Your task to perform on an android device: Open calendar and show me the fourth week of next month Image 0: 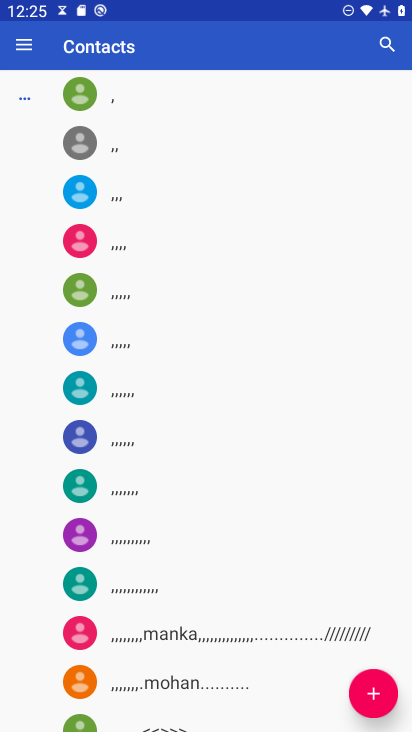
Step 0: press home button
Your task to perform on an android device: Open calendar and show me the fourth week of next month Image 1: 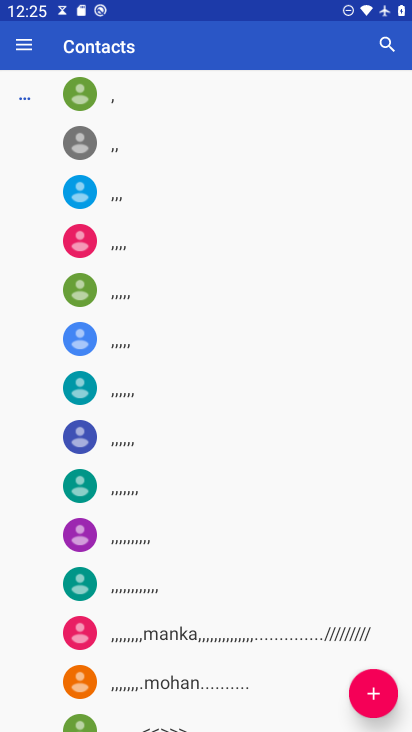
Step 1: press home button
Your task to perform on an android device: Open calendar and show me the fourth week of next month Image 2: 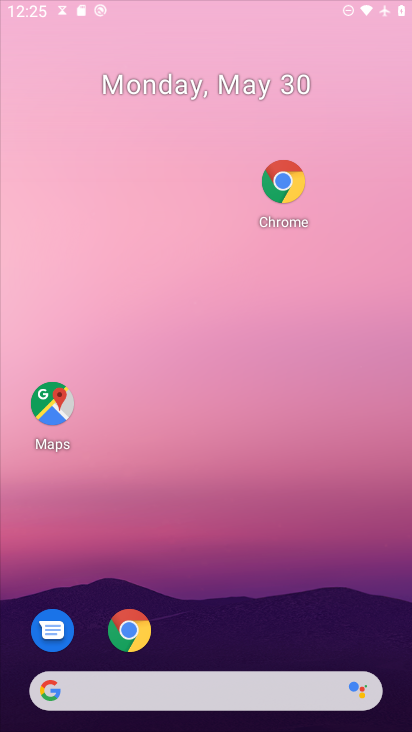
Step 2: press home button
Your task to perform on an android device: Open calendar and show me the fourth week of next month Image 3: 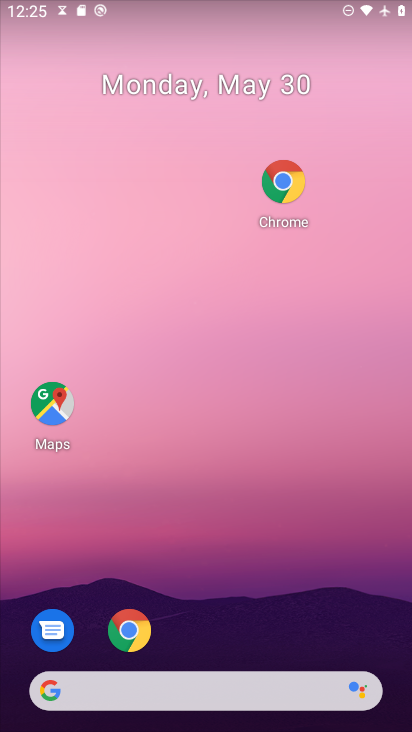
Step 3: drag from (211, 658) to (172, 182)
Your task to perform on an android device: Open calendar and show me the fourth week of next month Image 4: 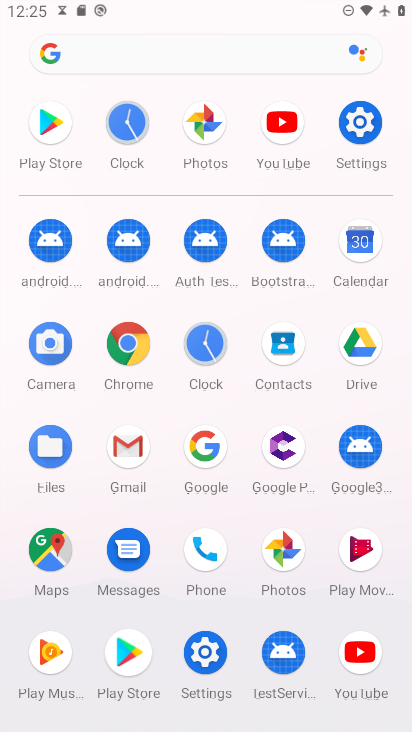
Step 4: click (352, 238)
Your task to perform on an android device: Open calendar and show me the fourth week of next month Image 5: 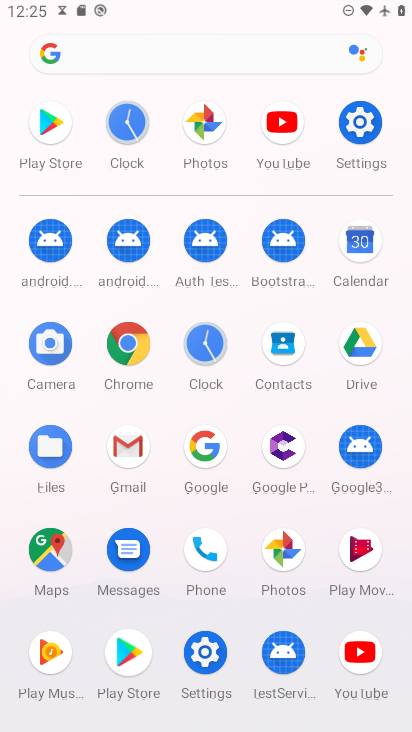
Step 5: click (352, 238)
Your task to perform on an android device: Open calendar and show me the fourth week of next month Image 6: 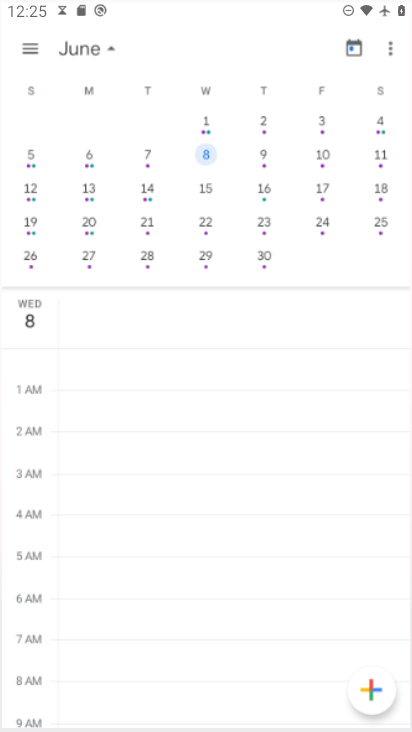
Step 6: click (357, 240)
Your task to perform on an android device: Open calendar and show me the fourth week of next month Image 7: 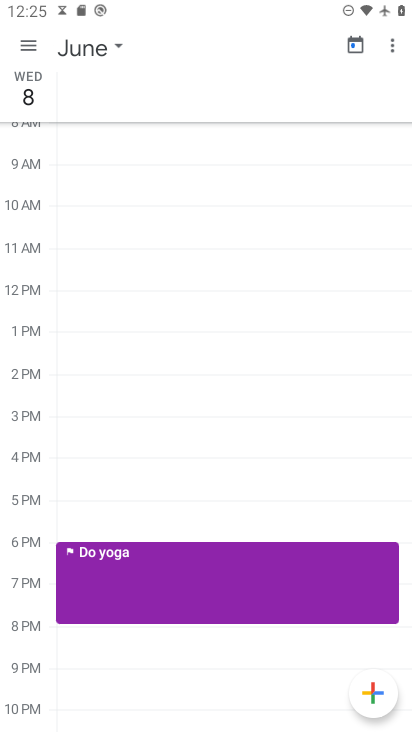
Step 7: press back button
Your task to perform on an android device: Open calendar and show me the fourth week of next month Image 8: 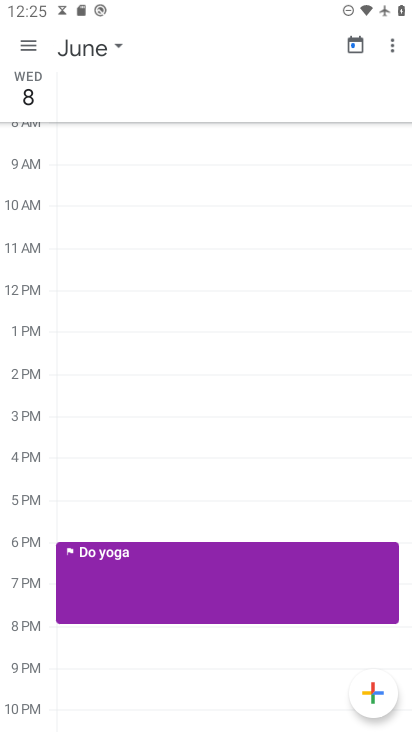
Step 8: press back button
Your task to perform on an android device: Open calendar and show me the fourth week of next month Image 9: 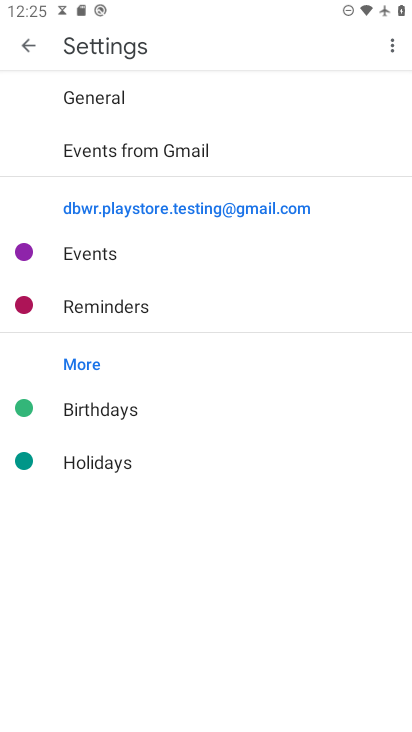
Step 9: press back button
Your task to perform on an android device: Open calendar and show me the fourth week of next month Image 10: 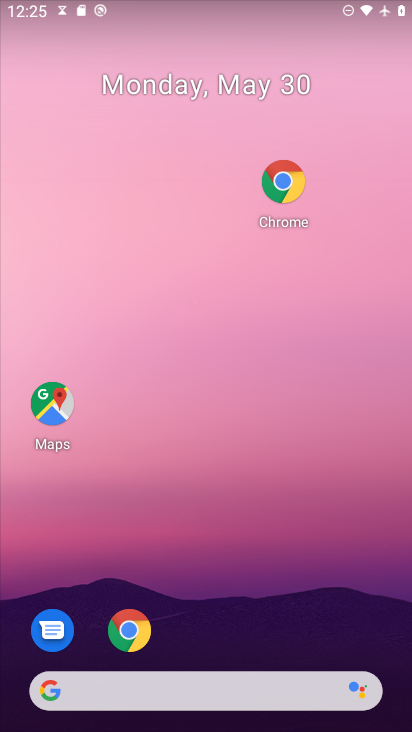
Step 10: drag from (223, 634) to (144, 123)
Your task to perform on an android device: Open calendar and show me the fourth week of next month Image 11: 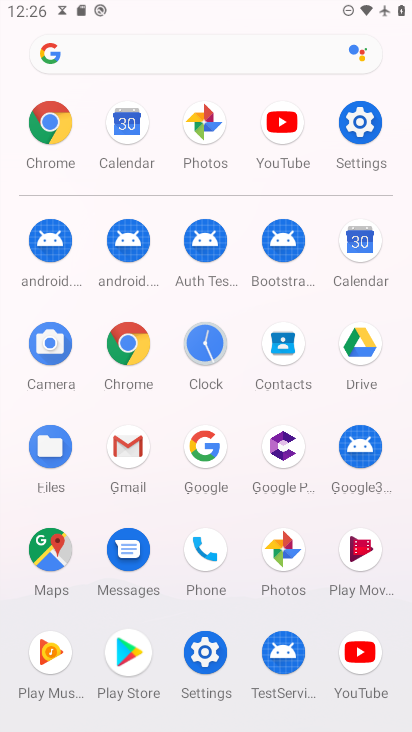
Step 11: click (360, 237)
Your task to perform on an android device: Open calendar and show me the fourth week of next month Image 12: 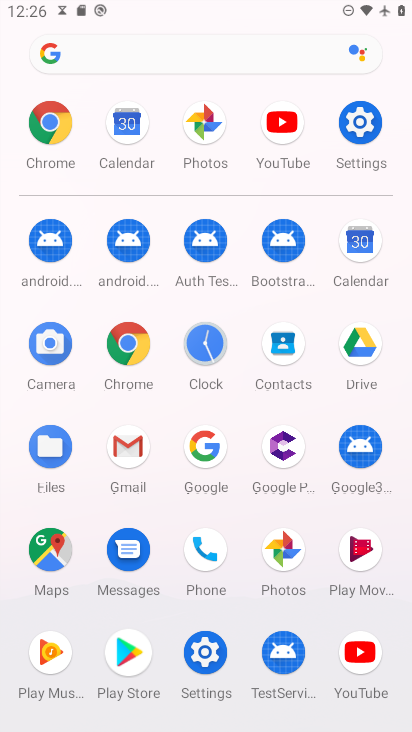
Step 12: click (361, 234)
Your task to perform on an android device: Open calendar and show me the fourth week of next month Image 13: 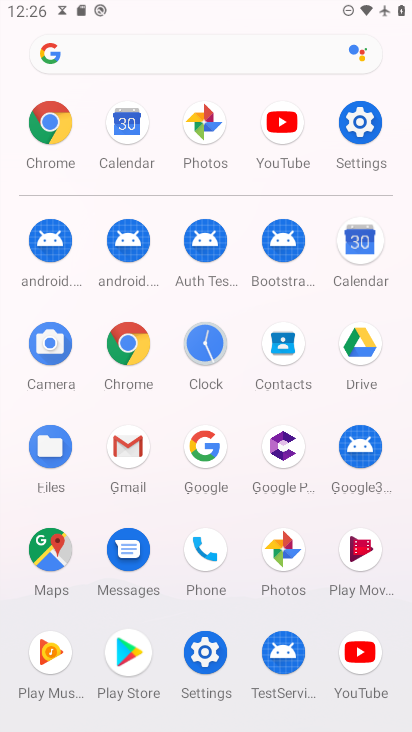
Step 13: click (362, 234)
Your task to perform on an android device: Open calendar and show me the fourth week of next month Image 14: 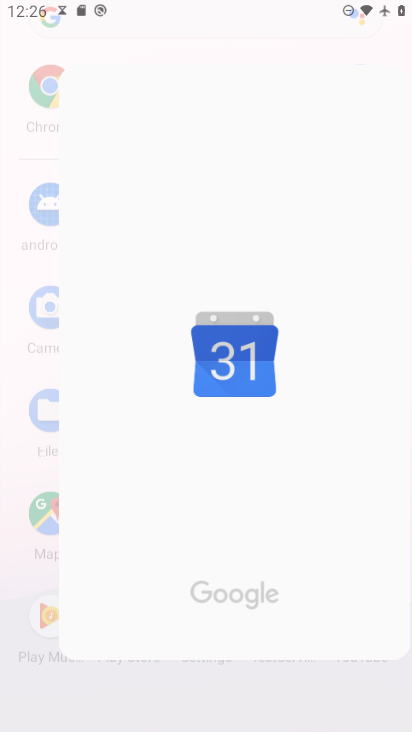
Step 14: click (364, 237)
Your task to perform on an android device: Open calendar and show me the fourth week of next month Image 15: 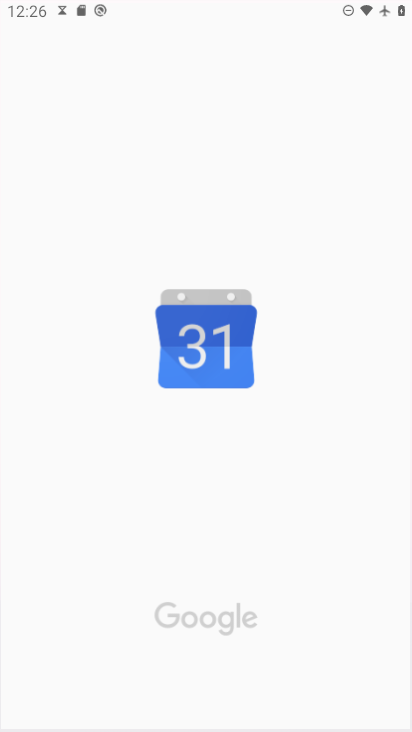
Step 15: click (365, 239)
Your task to perform on an android device: Open calendar and show me the fourth week of next month Image 16: 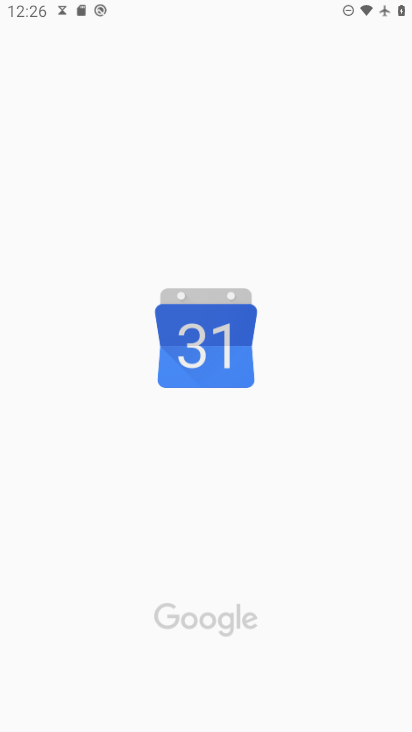
Step 16: click (364, 244)
Your task to perform on an android device: Open calendar and show me the fourth week of next month Image 17: 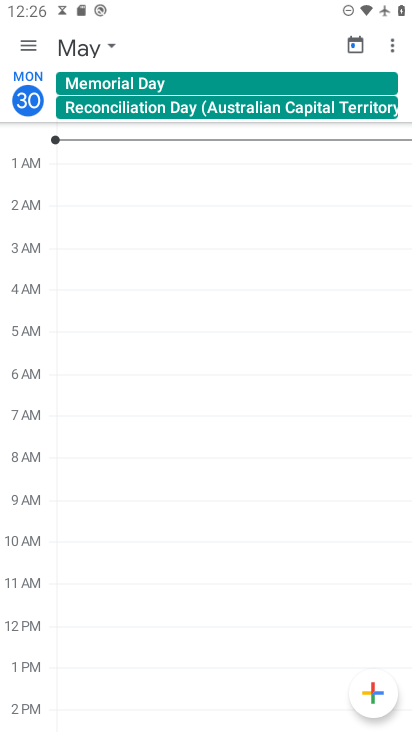
Step 17: click (113, 51)
Your task to perform on an android device: Open calendar and show me the fourth week of next month Image 18: 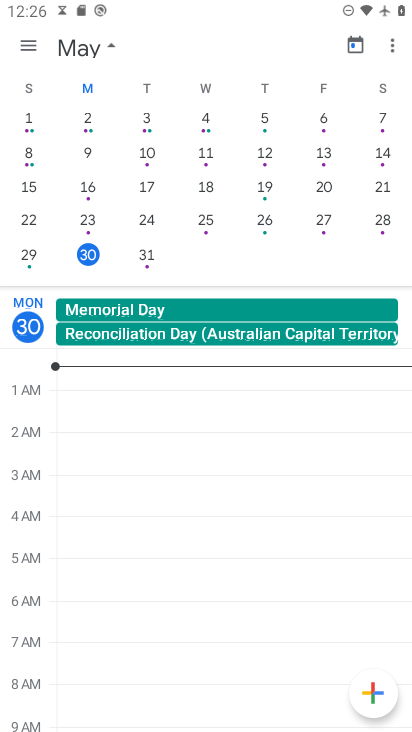
Step 18: drag from (286, 140) to (15, 200)
Your task to perform on an android device: Open calendar and show me the fourth week of next month Image 19: 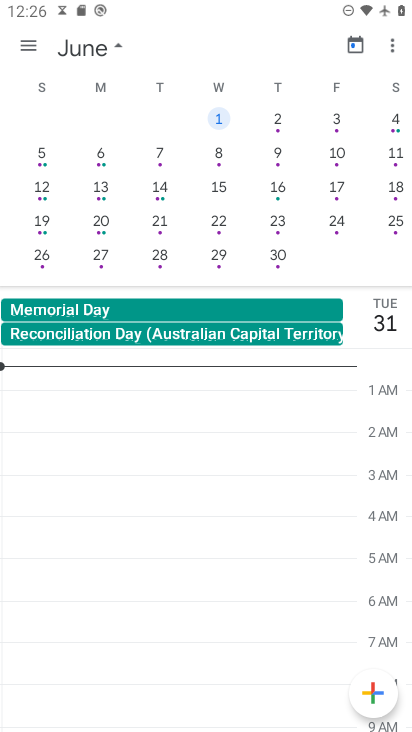
Step 19: drag from (190, 166) to (19, 204)
Your task to perform on an android device: Open calendar and show me the fourth week of next month Image 20: 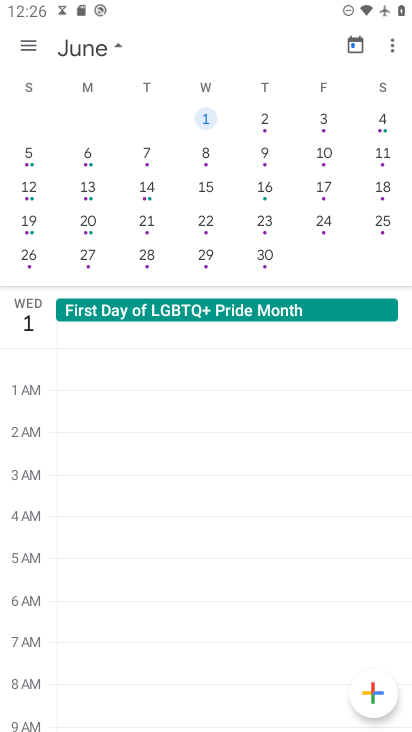
Step 20: click (205, 222)
Your task to perform on an android device: Open calendar and show me the fourth week of next month Image 21: 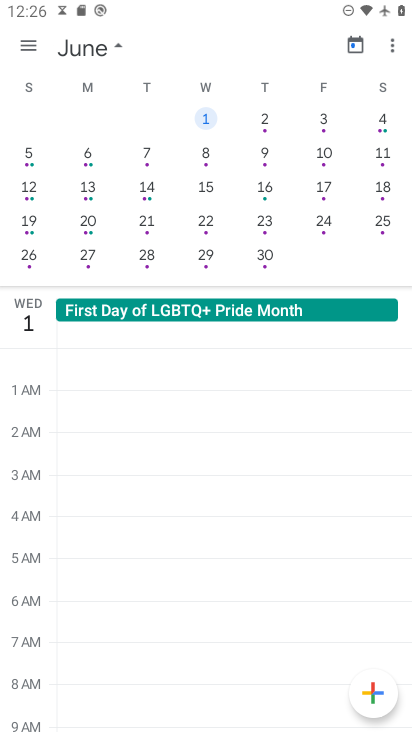
Step 21: click (216, 222)
Your task to perform on an android device: Open calendar and show me the fourth week of next month Image 22: 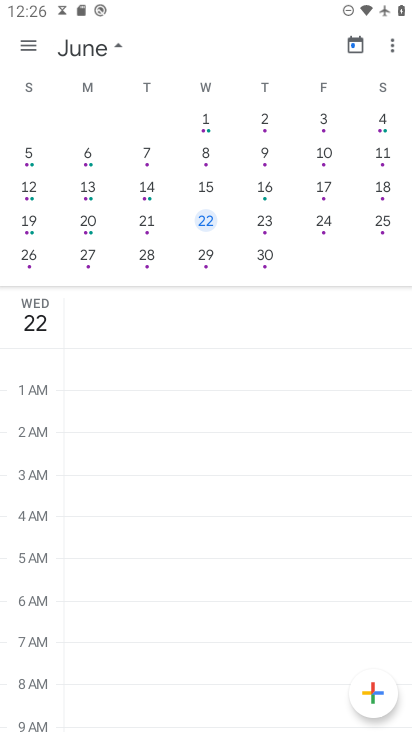
Step 22: click (215, 223)
Your task to perform on an android device: Open calendar and show me the fourth week of next month Image 23: 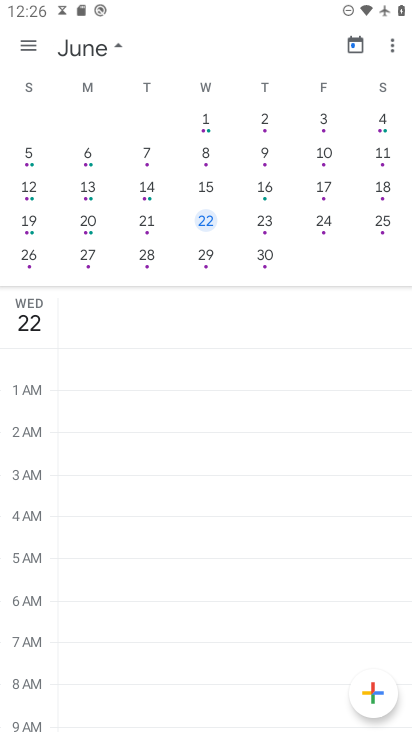
Step 23: click (214, 224)
Your task to perform on an android device: Open calendar and show me the fourth week of next month Image 24: 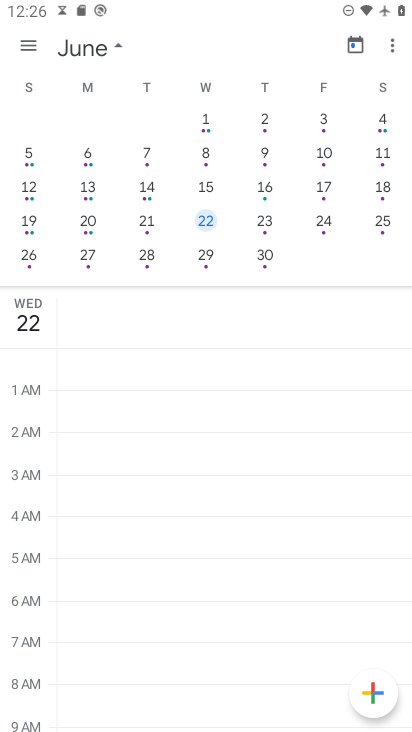
Step 24: task complete